Your task to perform on an android device: Open maps Image 0: 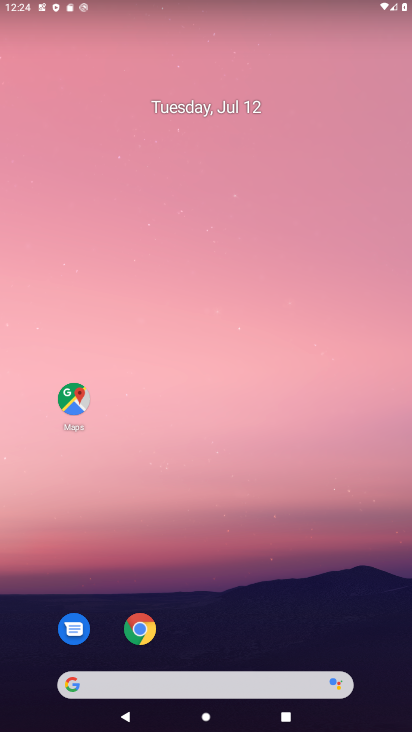
Step 0: press home button
Your task to perform on an android device: Open maps Image 1: 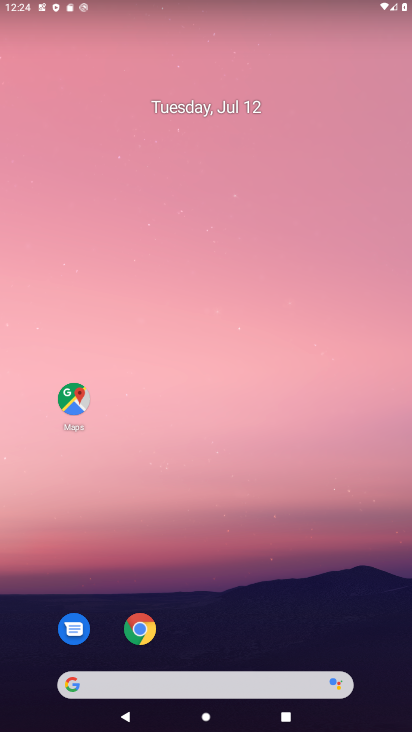
Step 1: click (75, 386)
Your task to perform on an android device: Open maps Image 2: 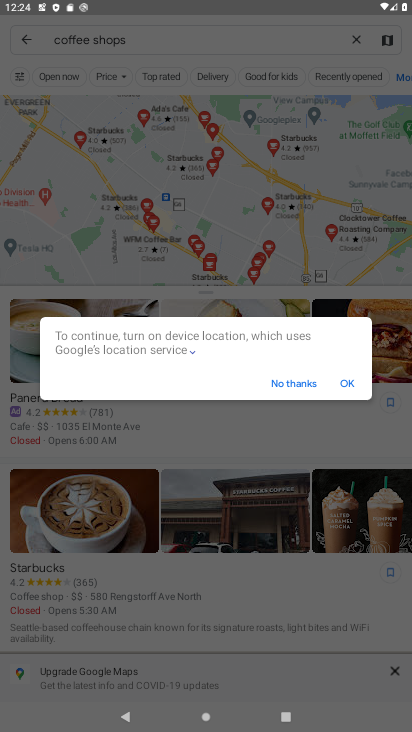
Step 2: task complete